Your task to perform on an android device: What's the news in Chile? Image 0: 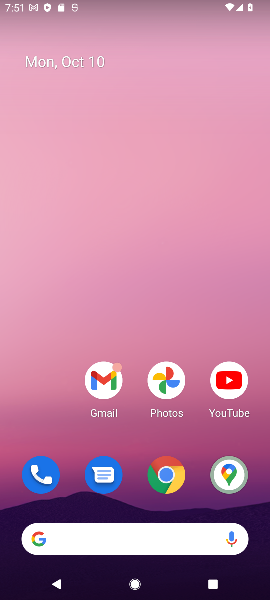
Step 0: click (165, 466)
Your task to perform on an android device: What's the news in Chile? Image 1: 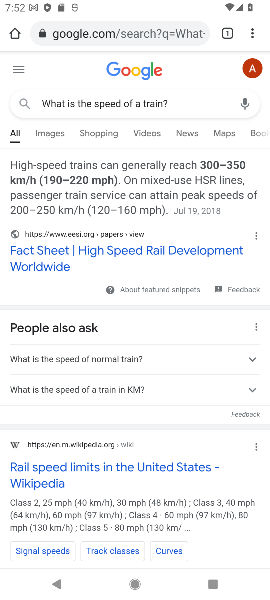
Step 1: click (135, 32)
Your task to perform on an android device: What's the news in Chile? Image 2: 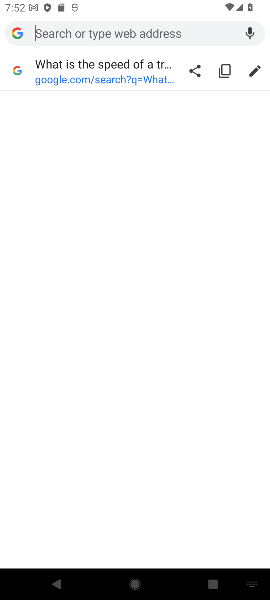
Step 2: type "What's the news in Chile?"
Your task to perform on an android device: What's the news in Chile? Image 3: 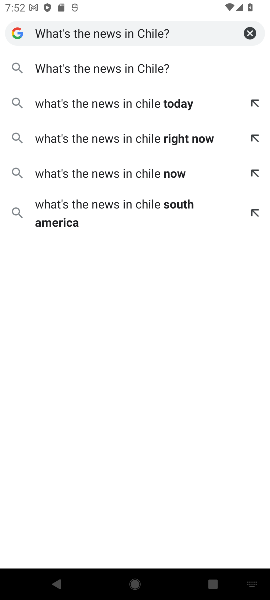
Step 3: click (153, 64)
Your task to perform on an android device: What's the news in Chile? Image 4: 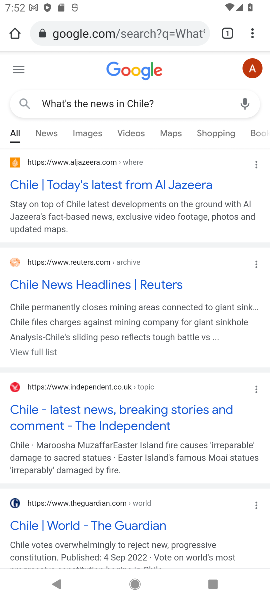
Step 4: click (142, 186)
Your task to perform on an android device: What's the news in Chile? Image 5: 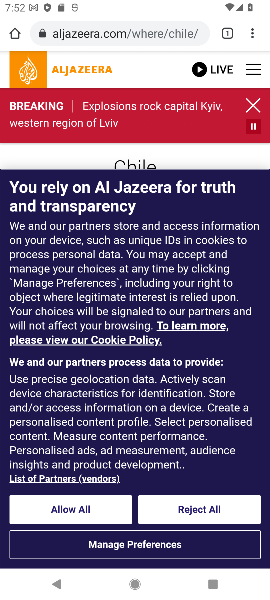
Step 5: task complete